Your task to perform on an android device: all mails in gmail Image 0: 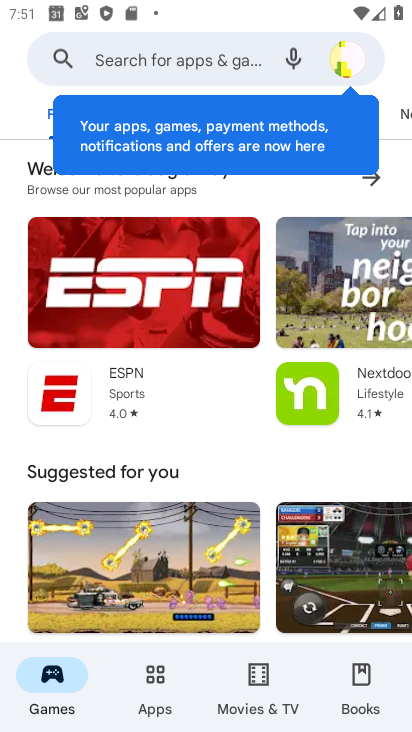
Step 0: press home button
Your task to perform on an android device: all mails in gmail Image 1: 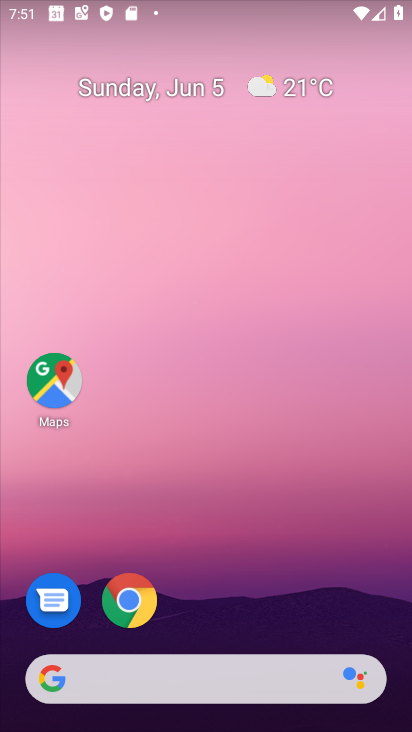
Step 1: drag from (168, 700) to (226, 87)
Your task to perform on an android device: all mails in gmail Image 2: 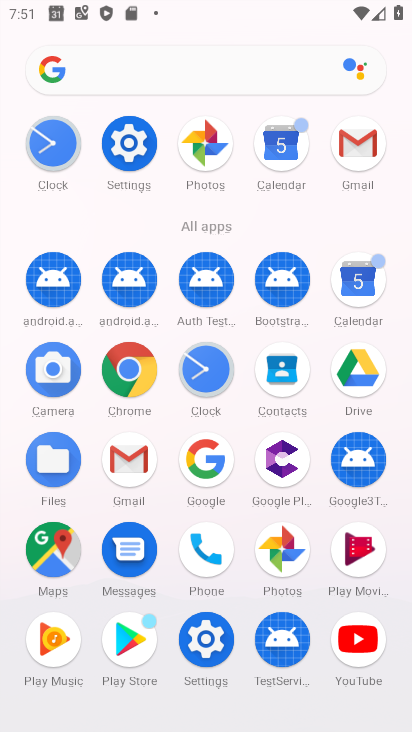
Step 2: click (368, 154)
Your task to perform on an android device: all mails in gmail Image 3: 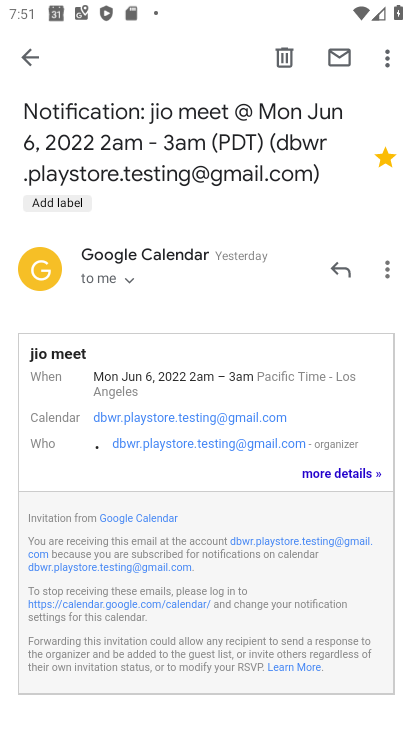
Step 3: click (35, 64)
Your task to perform on an android device: all mails in gmail Image 4: 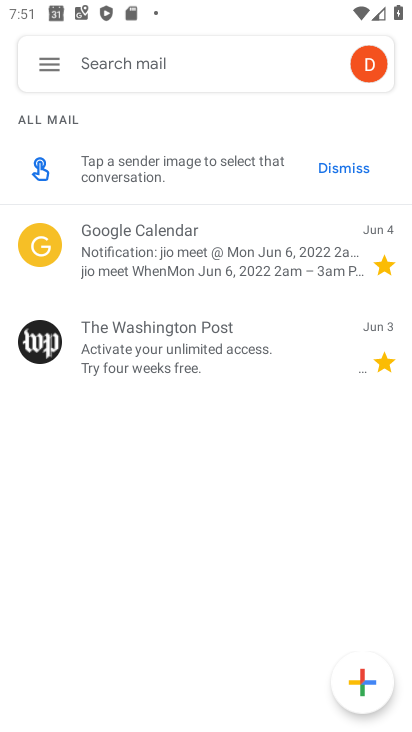
Step 4: click (35, 63)
Your task to perform on an android device: all mails in gmail Image 5: 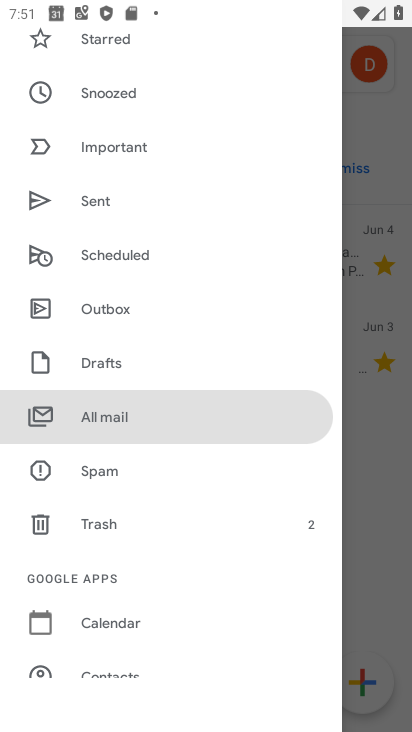
Step 5: click (141, 428)
Your task to perform on an android device: all mails in gmail Image 6: 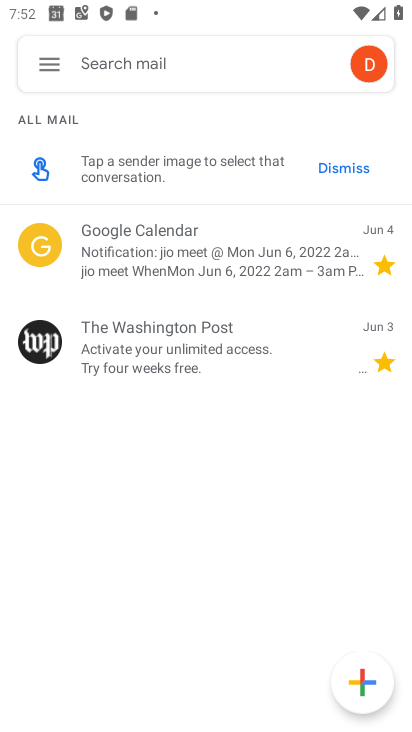
Step 6: task complete